Your task to perform on an android device: toggle translation in the chrome app Image 0: 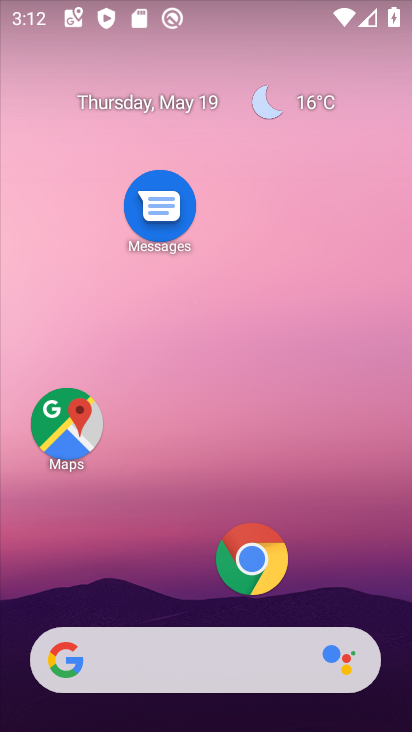
Step 0: click (235, 544)
Your task to perform on an android device: toggle translation in the chrome app Image 1: 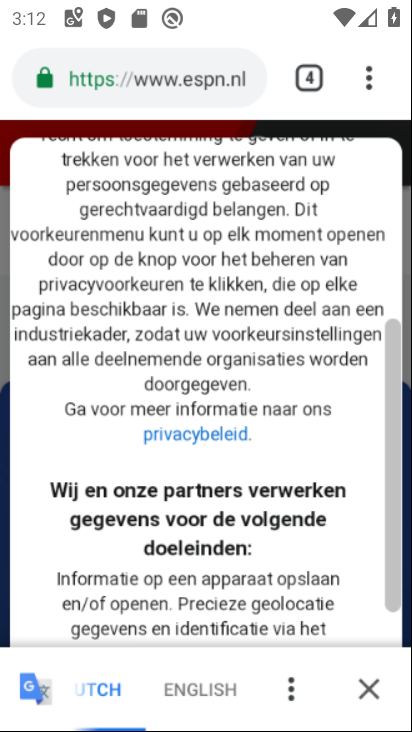
Step 1: click (360, 82)
Your task to perform on an android device: toggle translation in the chrome app Image 2: 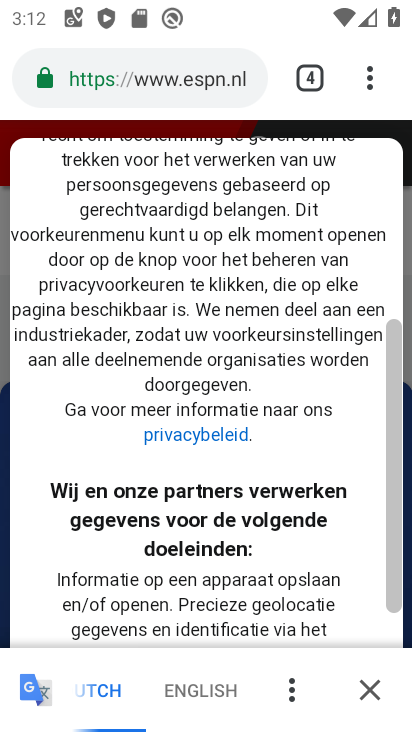
Step 2: click (373, 80)
Your task to perform on an android device: toggle translation in the chrome app Image 3: 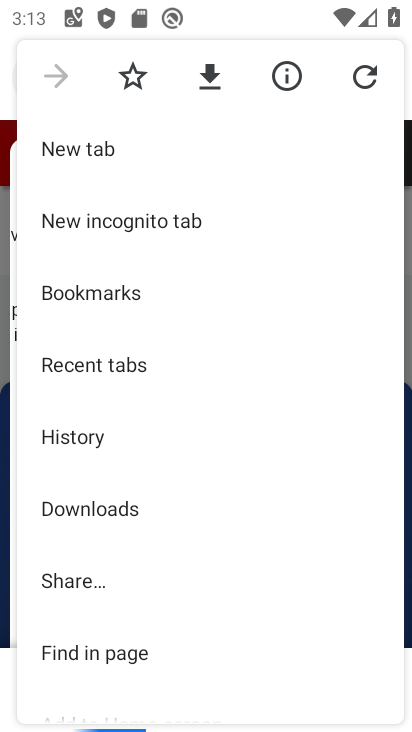
Step 3: drag from (233, 566) to (255, 346)
Your task to perform on an android device: toggle translation in the chrome app Image 4: 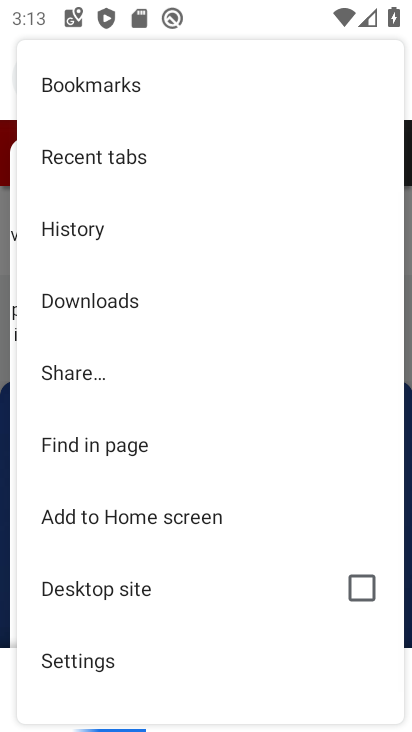
Step 4: drag from (248, 558) to (260, 333)
Your task to perform on an android device: toggle translation in the chrome app Image 5: 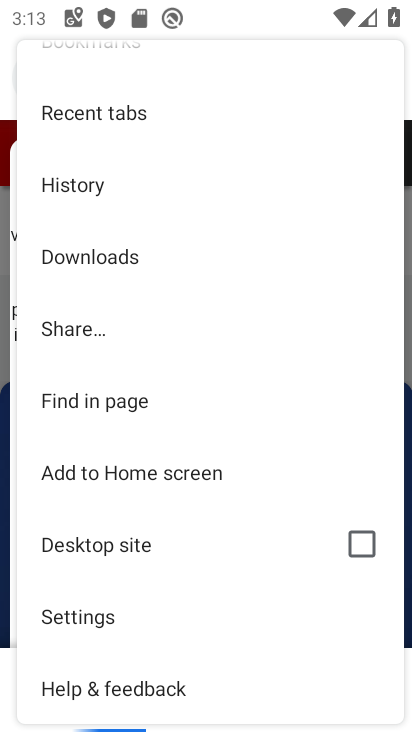
Step 5: click (116, 609)
Your task to perform on an android device: toggle translation in the chrome app Image 6: 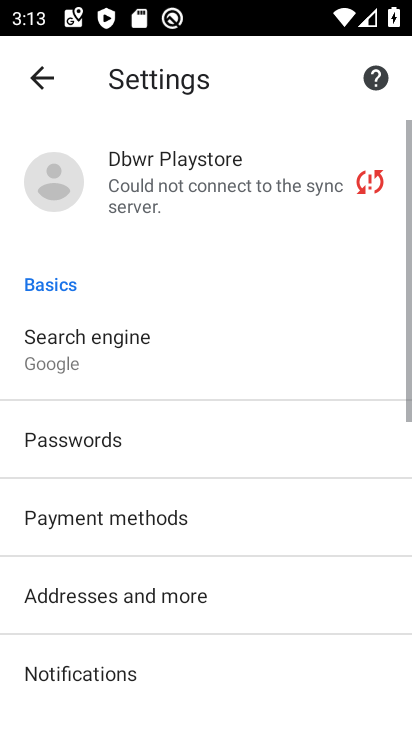
Step 6: drag from (202, 624) to (202, 342)
Your task to perform on an android device: toggle translation in the chrome app Image 7: 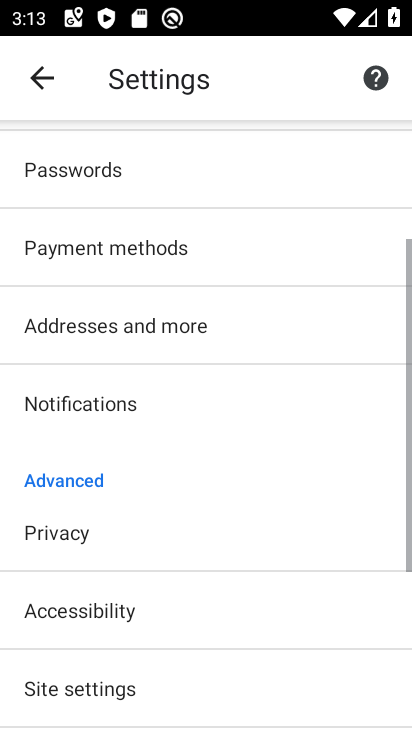
Step 7: drag from (203, 607) to (224, 411)
Your task to perform on an android device: toggle translation in the chrome app Image 8: 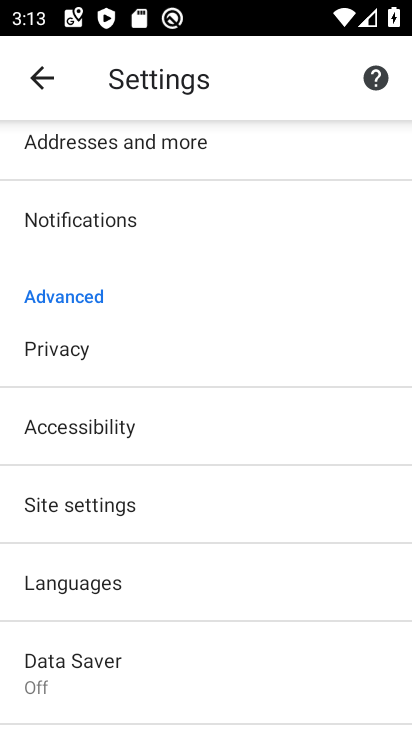
Step 8: click (157, 582)
Your task to perform on an android device: toggle translation in the chrome app Image 9: 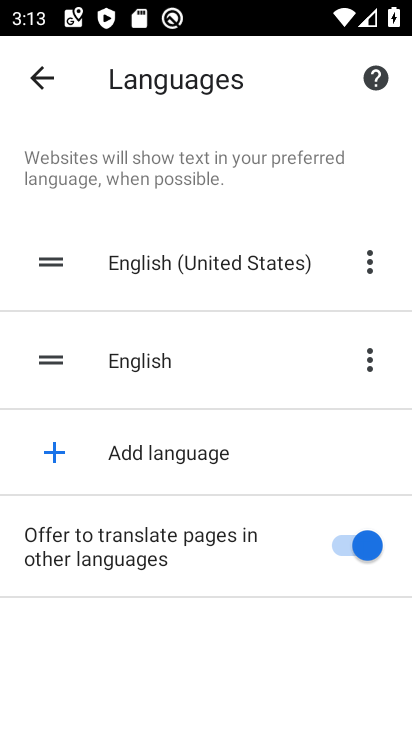
Step 9: click (344, 541)
Your task to perform on an android device: toggle translation in the chrome app Image 10: 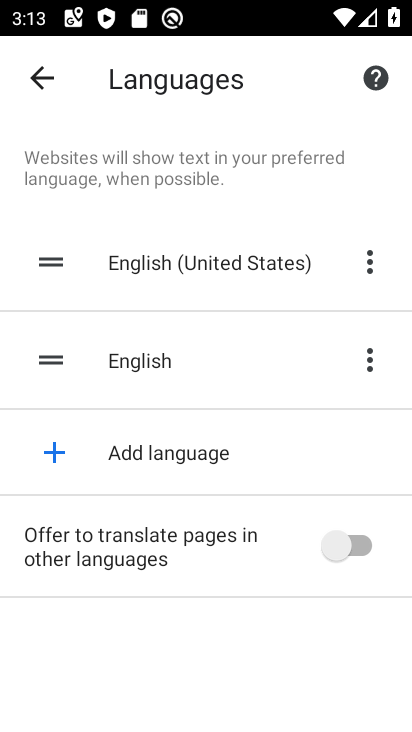
Step 10: task complete